Your task to perform on an android device: turn on javascript in the chrome app Image 0: 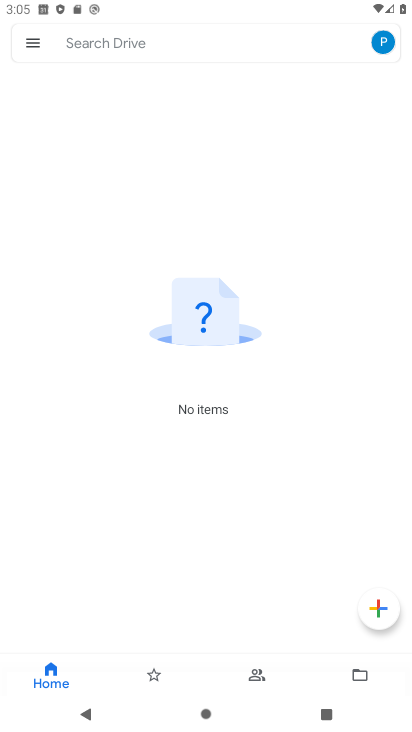
Step 0: press home button
Your task to perform on an android device: turn on javascript in the chrome app Image 1: 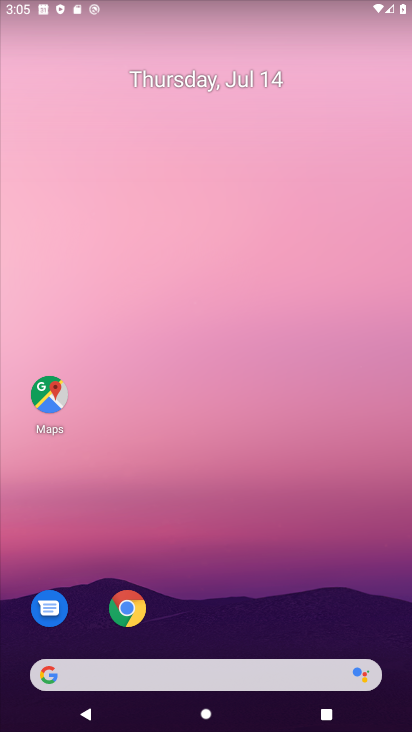
Step 1: click (126, 613)
Your task to perform on an android device: turn on javascript in the chrome app Image 2: 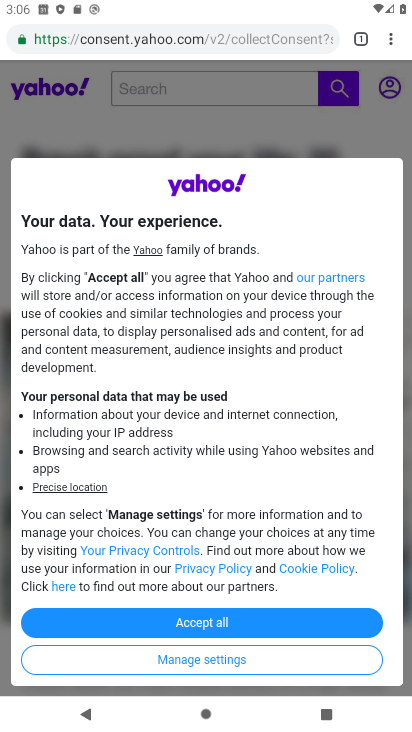
Step 2: click (382, 35)
Your task to perform on an android device: turn on javascript in the chrome app Image 3: 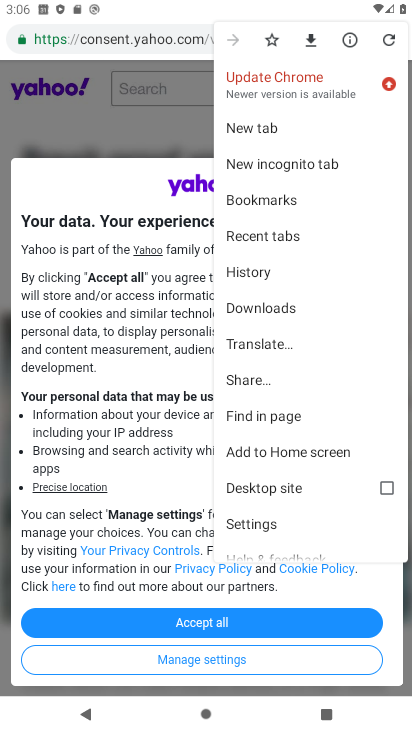
Step 3: click (256, 525)
Your task to perform on an android device: turn on javascript in the chrome app Image 4: 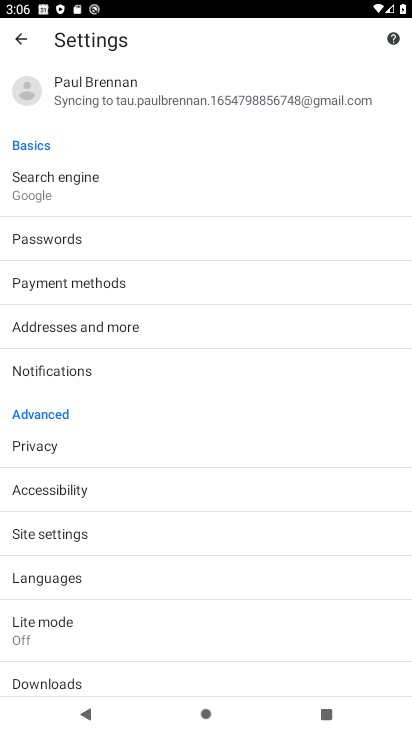
Step 4: click (80, 530)
Your task to perform on an android device: turn on javascript in the chrome app Image 5: 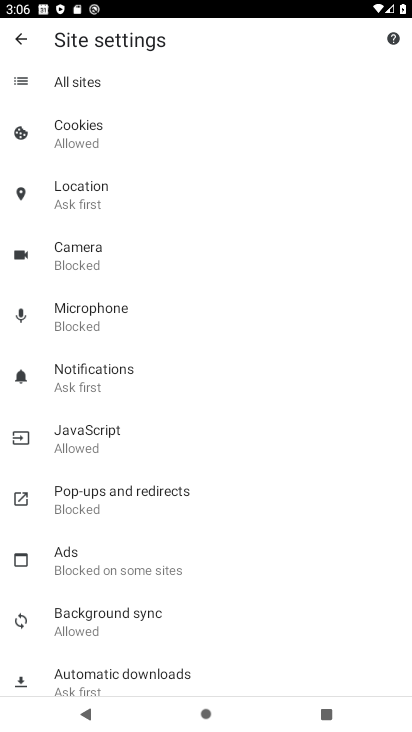
Step 5: click (83, 446)
Your task to perform on an android device: turn on javascript in the chrome app Image 6: 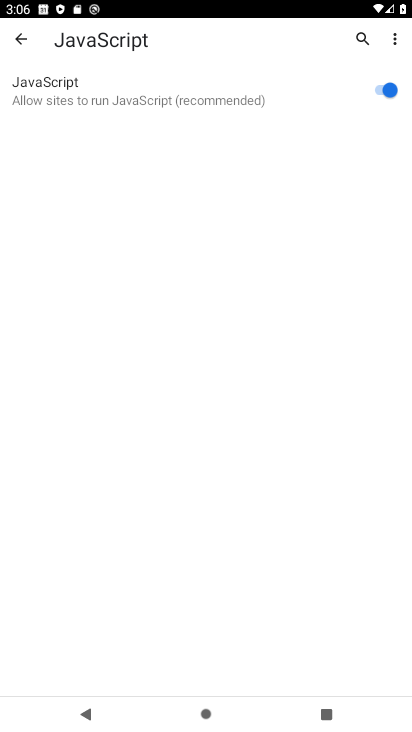
Step 6: task complete